Your task to perform on an android device: Open Chrome and go to the settings page Image 0: 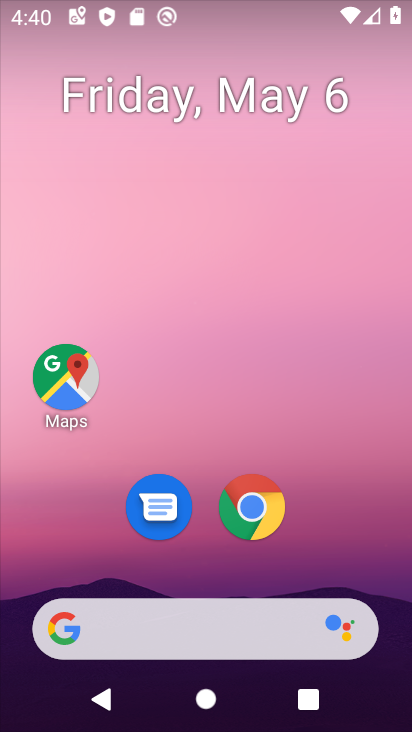
Step 0: click (253, 511)
Your task to perform on an android device: Open Chrome and go to the settings page Image 1: 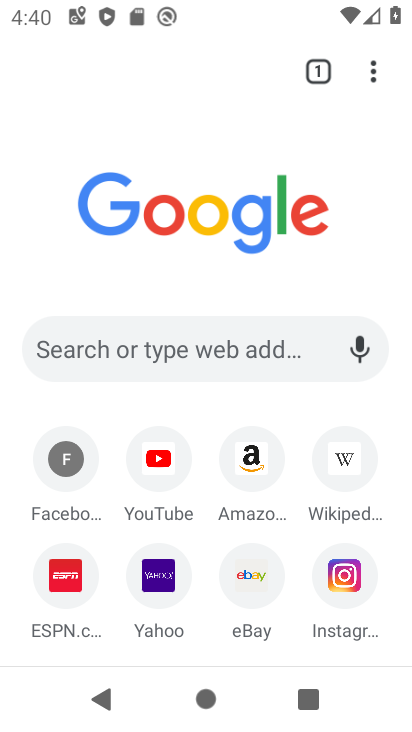
Step 1: click (258, 510)
Your task to perform on an android device: Open Chrome and go to the settings page Image 2: 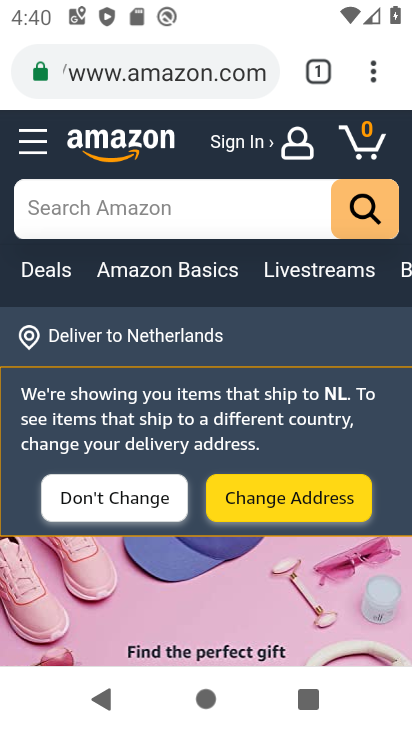
Step 2: click (378, 67)
Your task to perform on an android device: Open Chrome and go to the settings page Image 3: 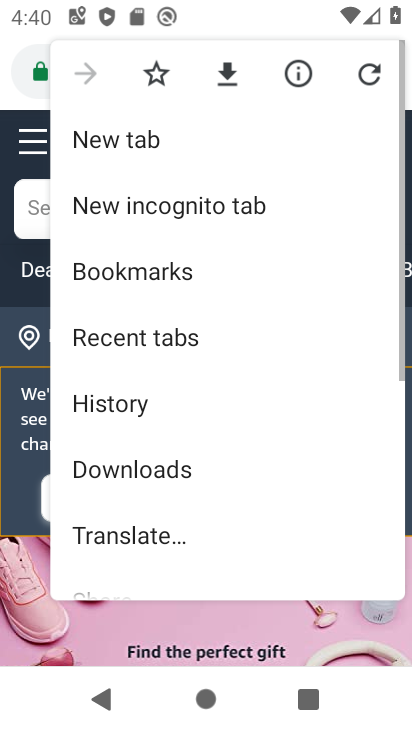
Step 3: click (369, 77)
Your task to perform on an android device: Open Chrome and go to the settings page Image 4: 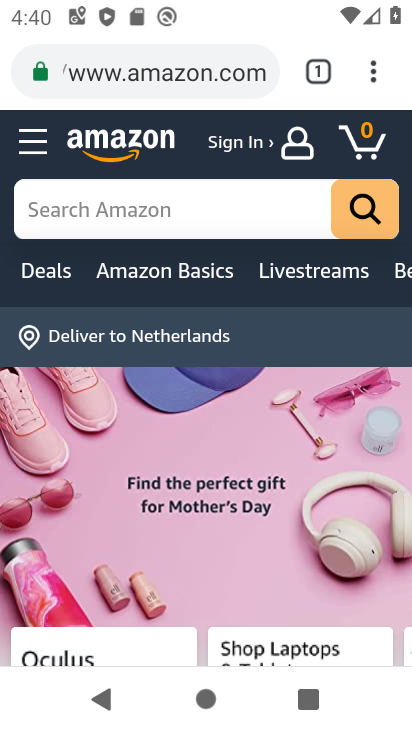
Step 4: click (373, 74)
Your task to perform on an android device: Open Chrome and go to the settings page Image 5: 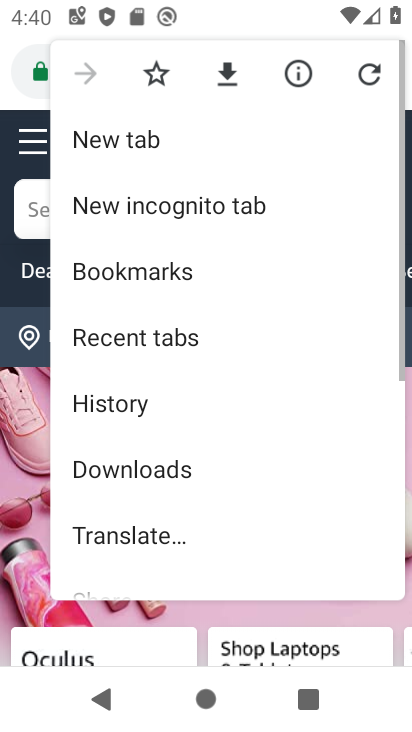
Step 5: click (371, 69)
Your task to perform on an android device: Open Chrome and go to the settings page Image 6: 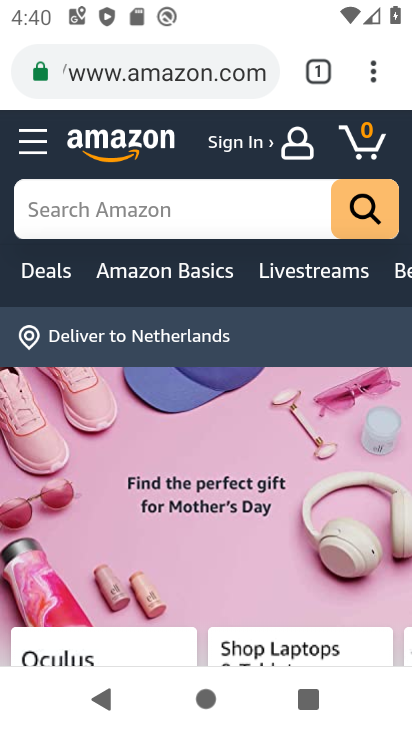
Step 6: click (156, 262)
Your task to perform on an android device: Open Chrome and go to the settings page Image 7: 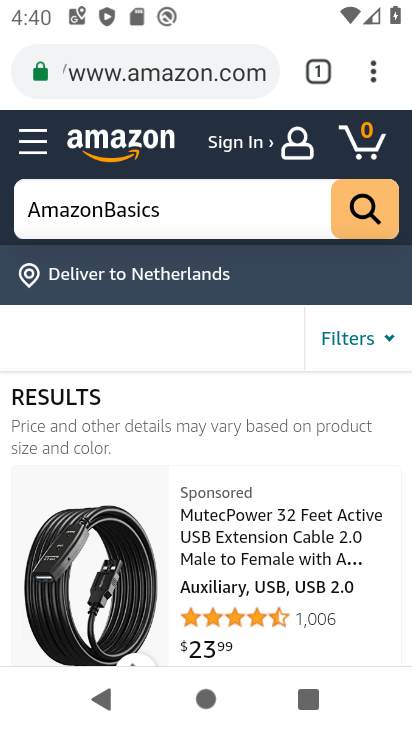
Step 7: click (374, 68)
Your task to perform on an android device: Open Chrome and go to the settings page Image 8: 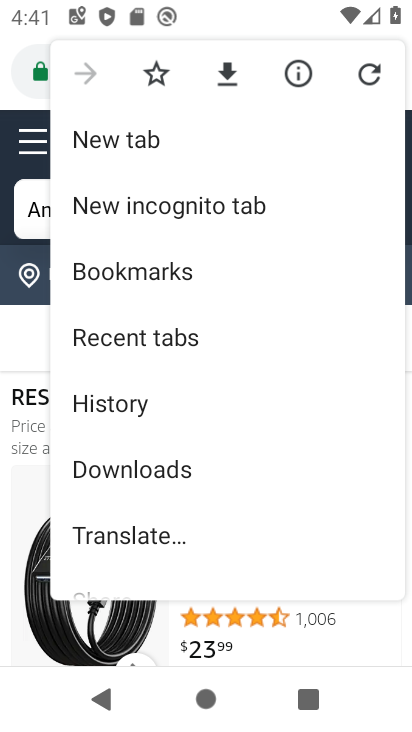
Step 8: drag from (168, 262) to (157, 214)
Your task to perform on an android device: Open Chrome and go to the settings page Image 9: 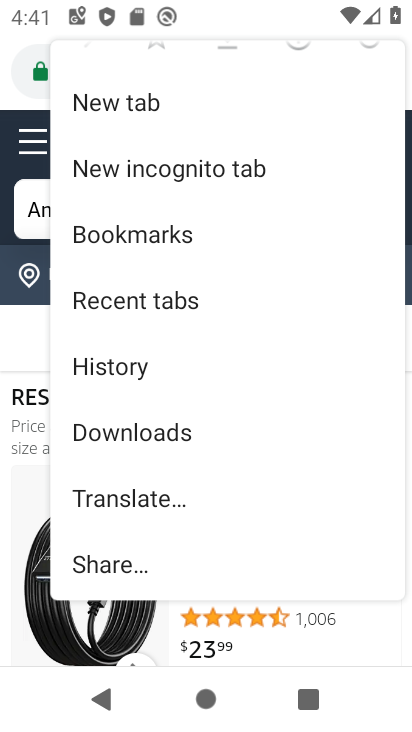
Step 9: drag from (202, 496) to (199, 258)
Your task to perform on an android device: Open Chrome and go to the settings page Image 10: 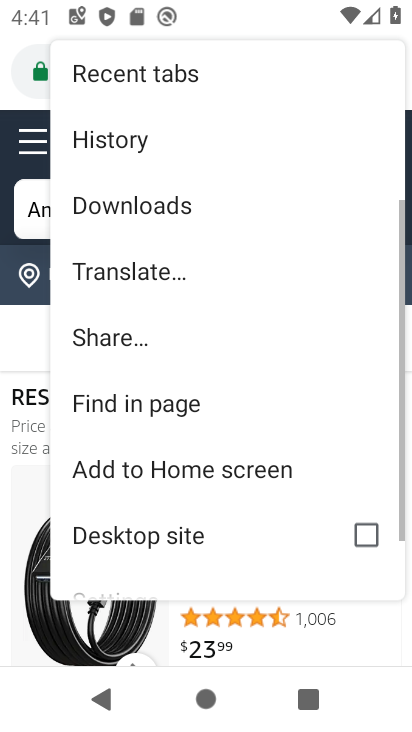
Step 10: drag from (218, 192) to (203, 94)
Your task to perform on an android device: Open Chrome and go to the settings page Image 11: 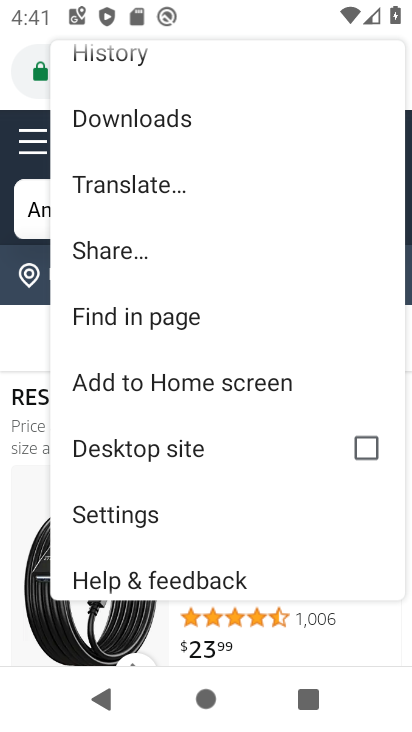
Step 11: click (124, 511)
Your task to perform on an android device: Open Chrome and go to the settings page Image 12: 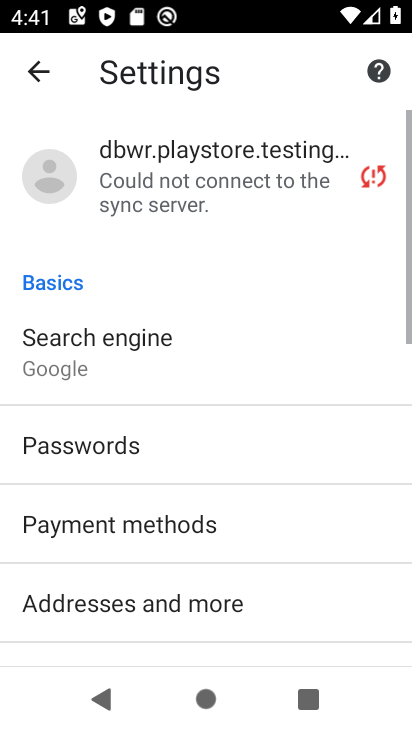
Step 12: click (116, 520)
Your task to perform on an android device: Open Chrome and go to the settings page Image 13: 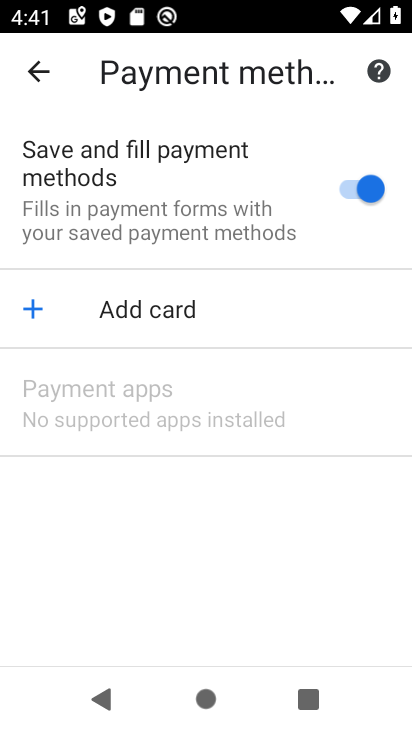
Step 13: task complete